Your task to perform on an android device: Show me productivity apps on the Play Store Image 0: 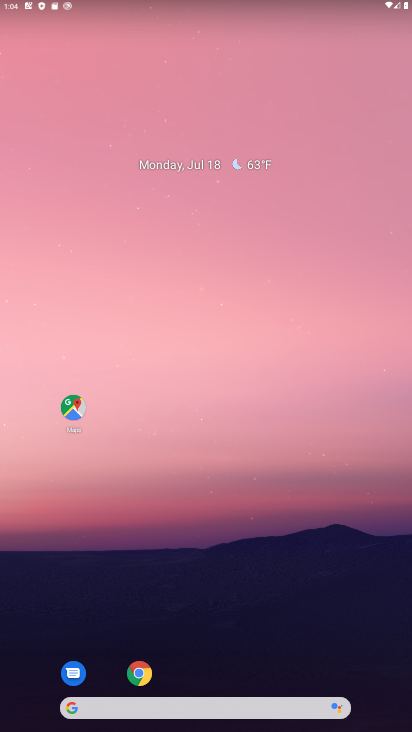
Step 0: drag from (271, 681) to (261, 222)
Your task to perform on an android device: Show me productivity apps on the Play Store Image 1: 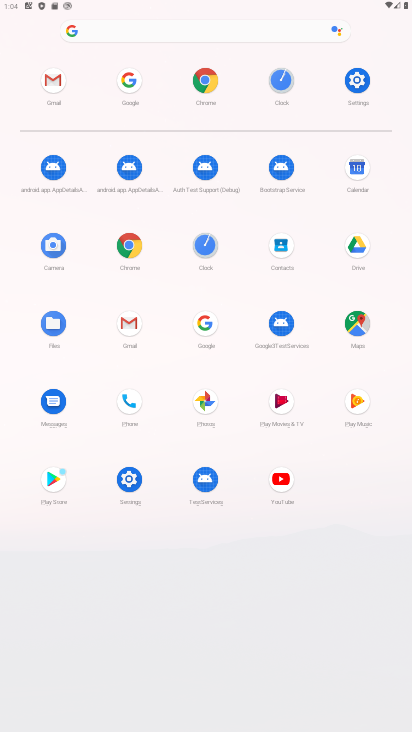
Step 1: click (47, 485)
Your task to perform on an android device: Show me productivity apps on the Play Store Image 2: 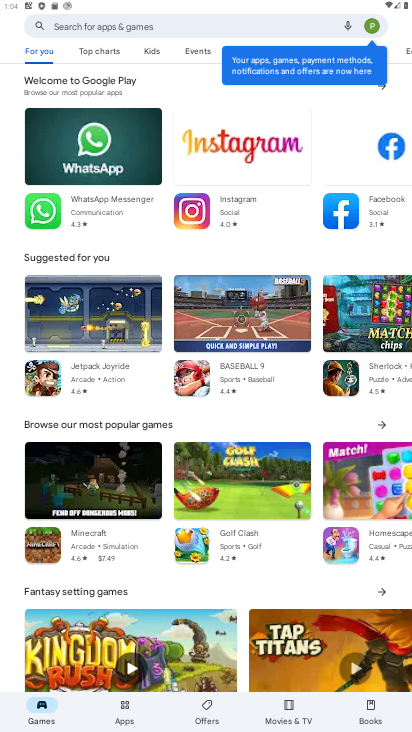
Step 2: click (118, 706)
Your task to perform on an android device: Show me productivity apps on the Play Store Image 3: 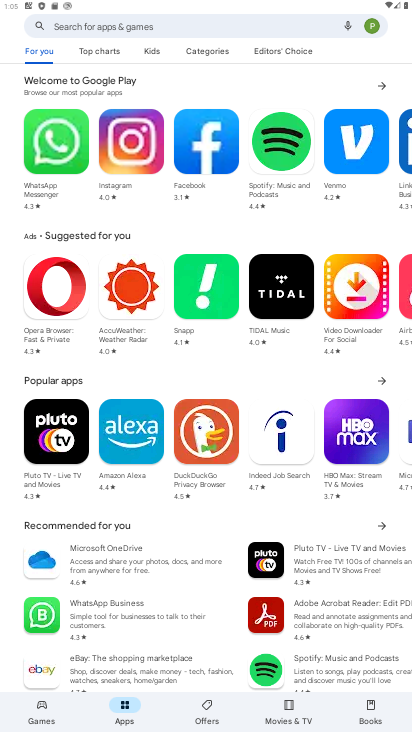
Step 3: task complete